Your task to perform on an android device: Open the calendar app, open the side menu, and click the "Day" option Image 0: 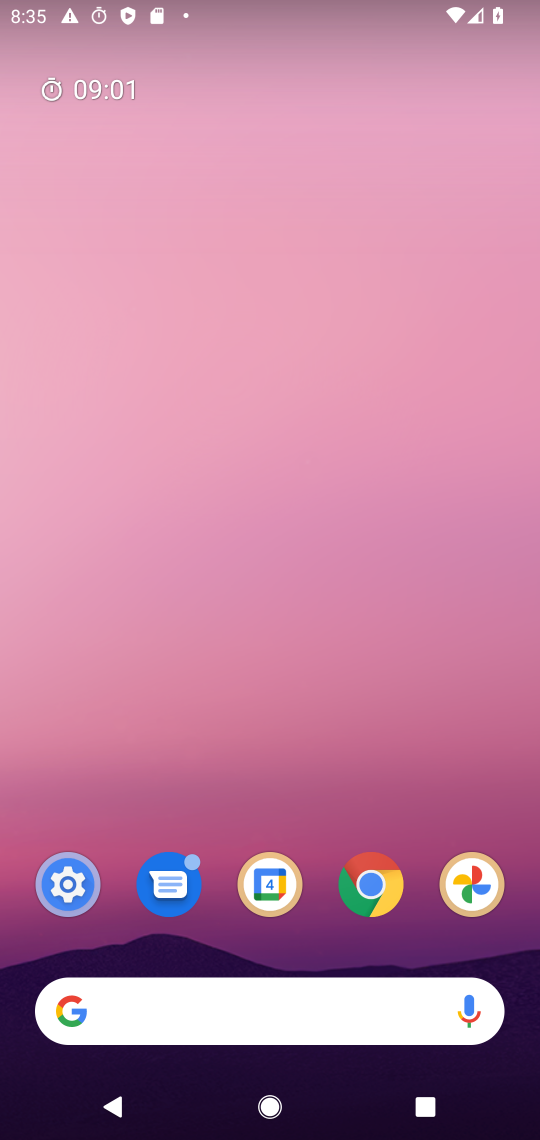
Step 0: press home button
Your task to perform on an android device: Open the calendar app, open the side menu, and click the "Day" option Image 1: 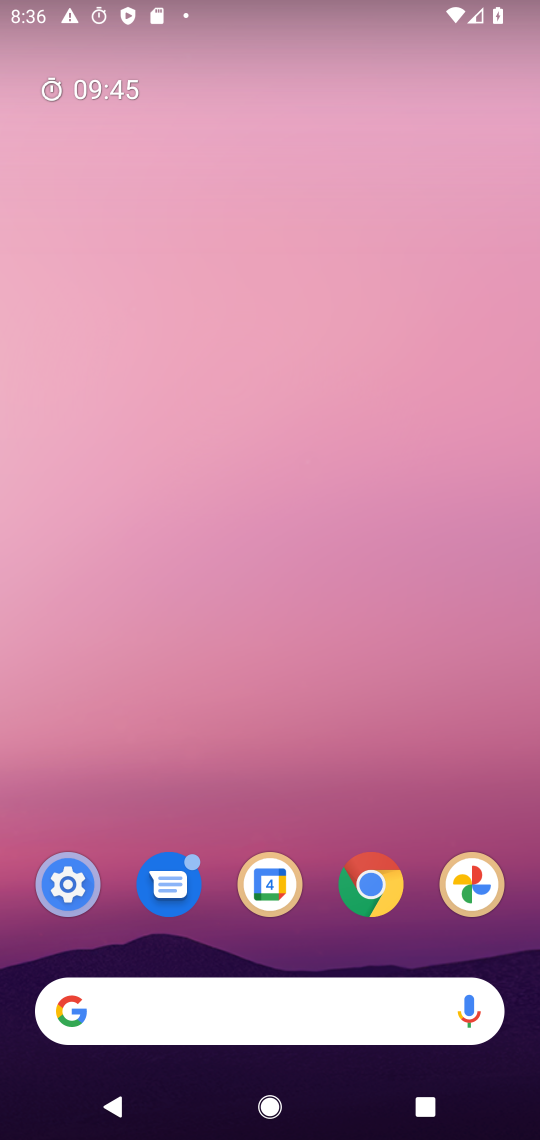
Step 1: drag from (284, 897) to (466, 106)
Your task to perform on an android device: Open the calendar app, open the side menu, and click the "Day" option Image 2: 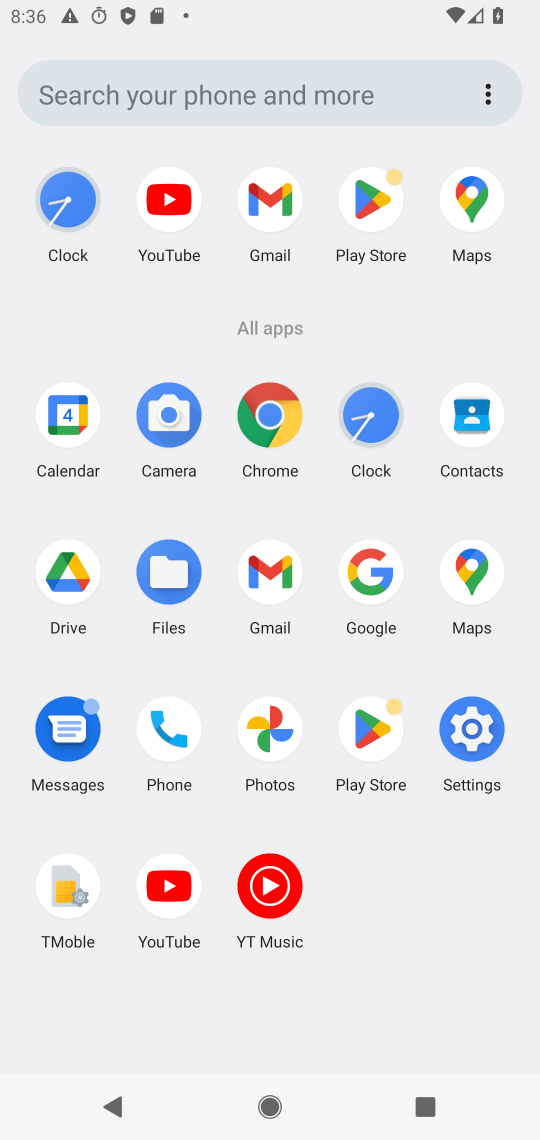
Step 2: click (55, 418)
Your task to perform on an android device: Open the calendar app, open the side menu, and click the "Day" option Image 3: 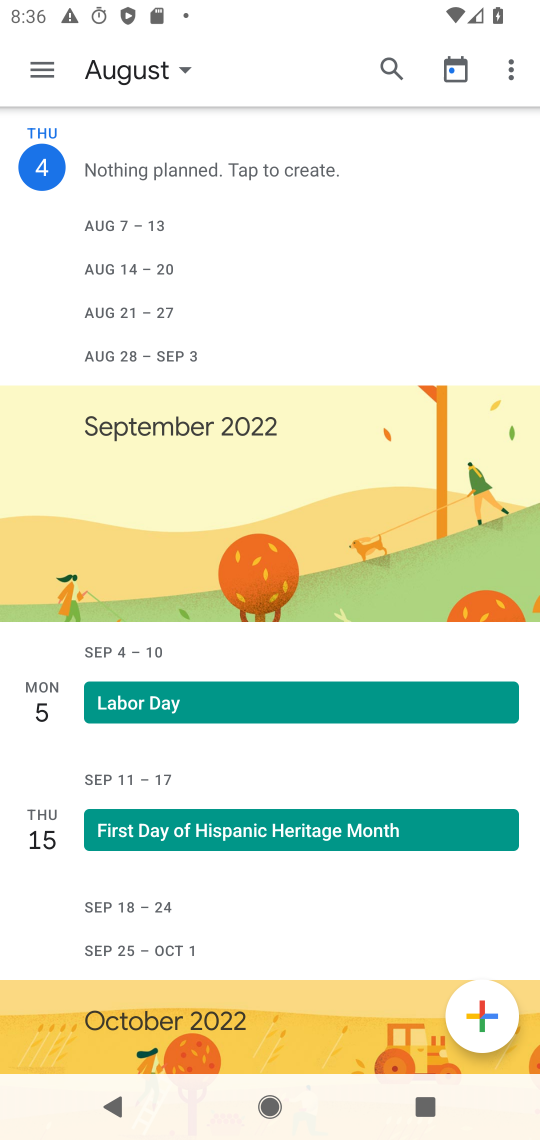
Step 3: click (50, 73)
Your task to perform on an android device: Open the calendar app, open the side menu, and click the "Day" option Image 4: 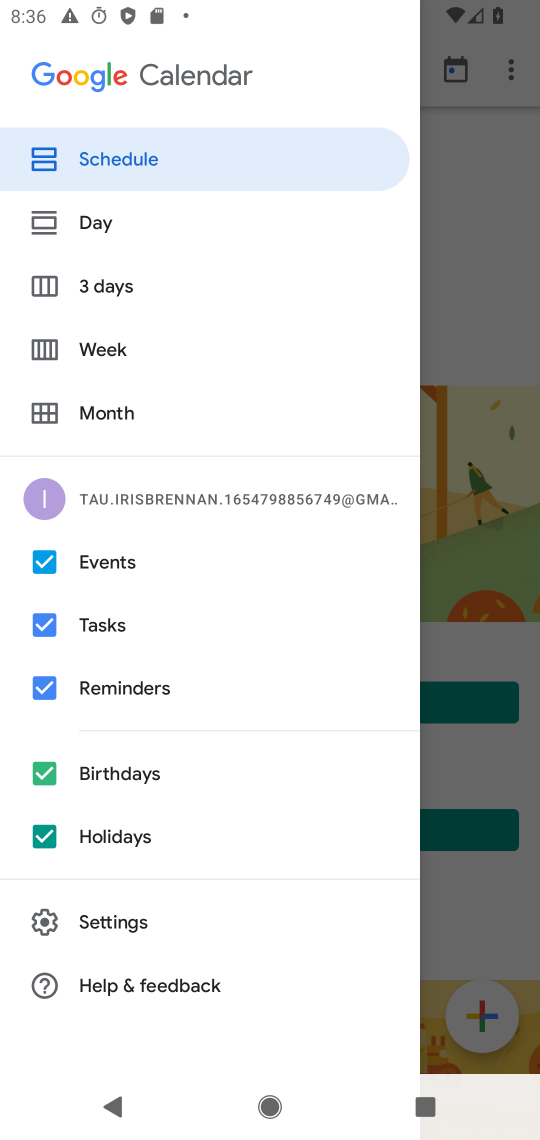
Step 4: click (96, 223)
Your task to perform on an android device: Open the calendar app, open the side menu, and click the "Day" option Image 5: 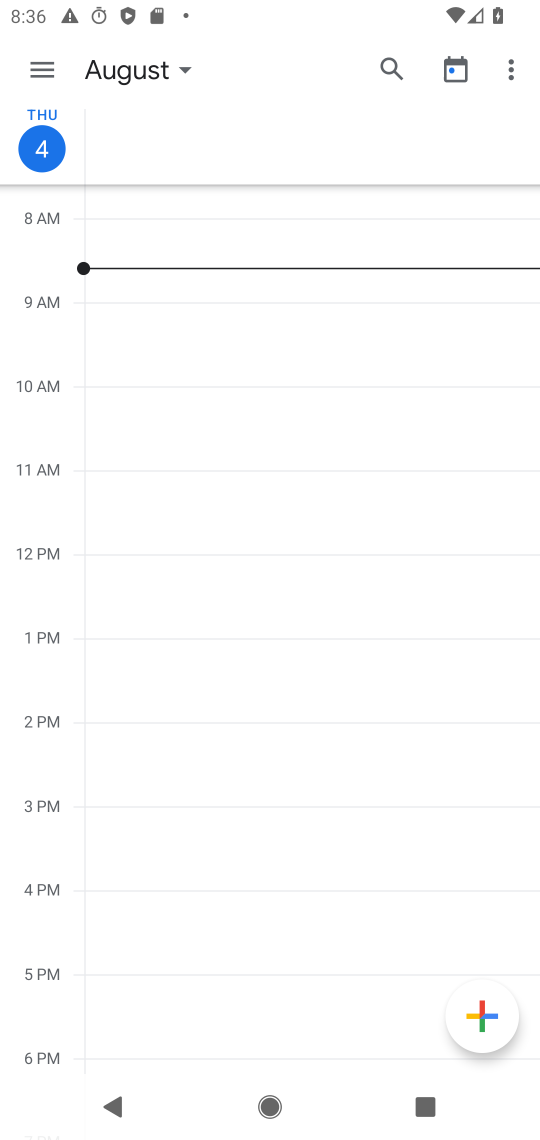
Step 5: task complete